Your task to perform on an android device: Open maps Image 0: 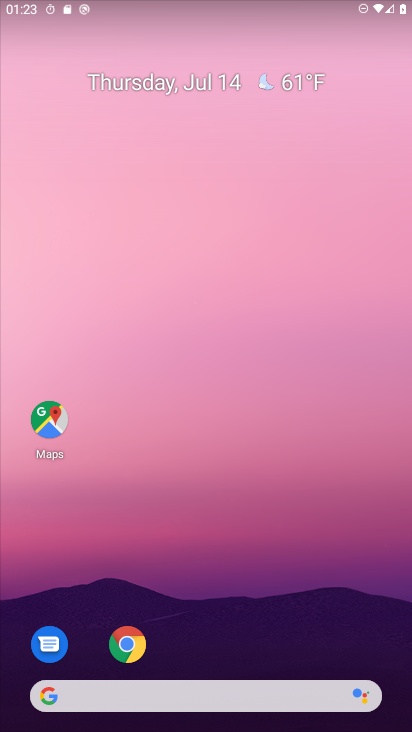
Step 0: click (55, 433)
Your task to perform on an android device: Open maps Image 1: 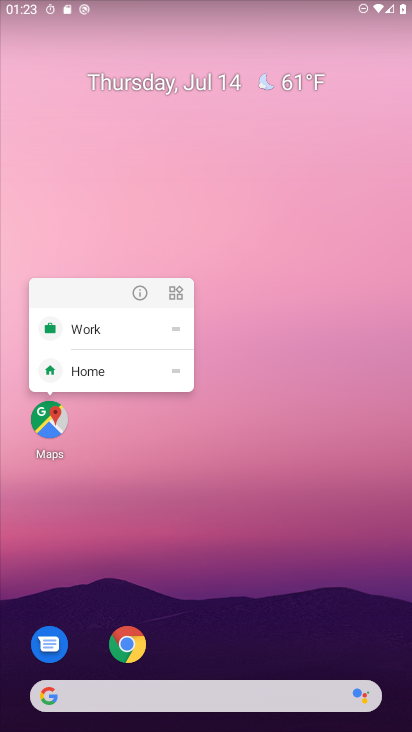
Step 1: click (49, 428)
Your task to perform on an android device: Open maps Image 2: 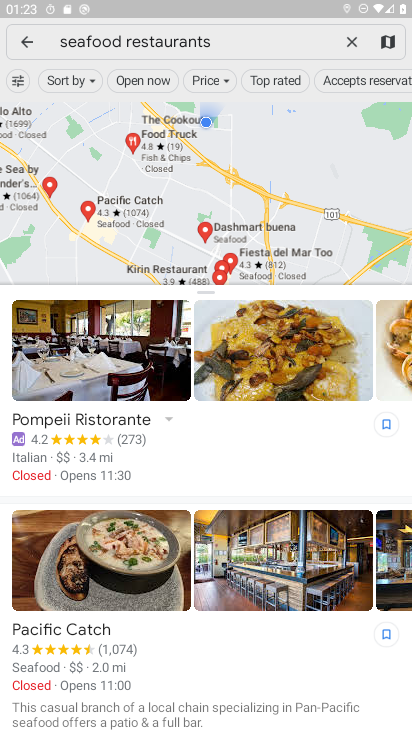
Step 2: task complete